Your task to perform on an android device: make emails show in primary in the gmail app Image 0: 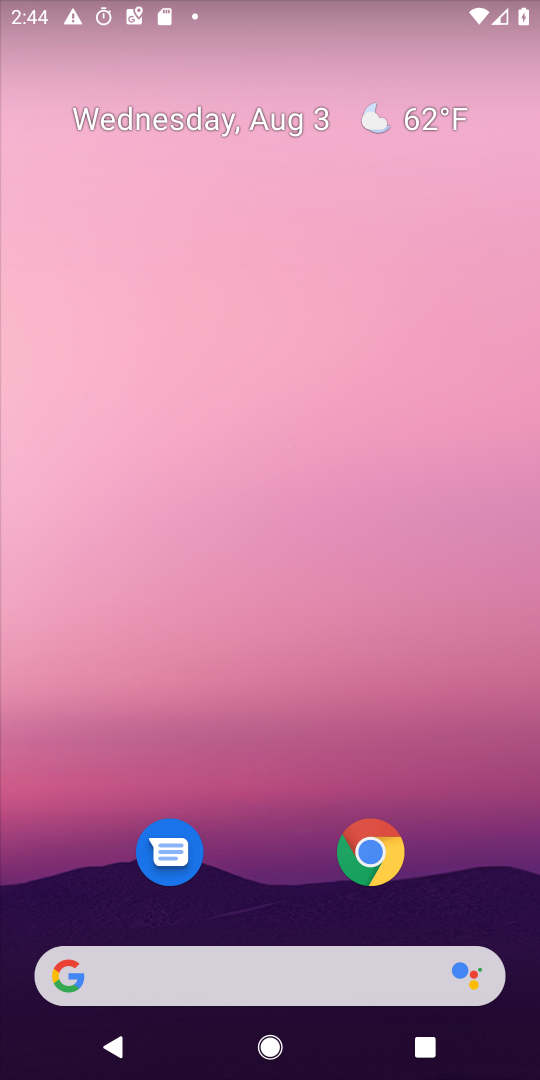
Step 0: drag from (493, 847) to (214, 15)
Your task to perform on an android device: make emails show in primary in the gmail app Image 1: 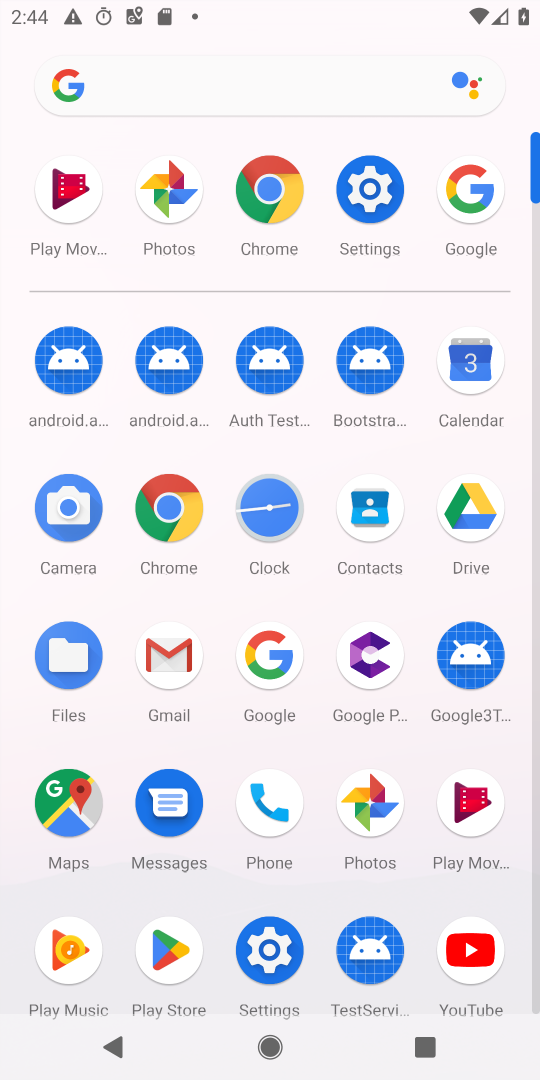
Step 1: click (157, 661)
Your task to perform on an android device: make emails show in primary in the gmail app Image 2: 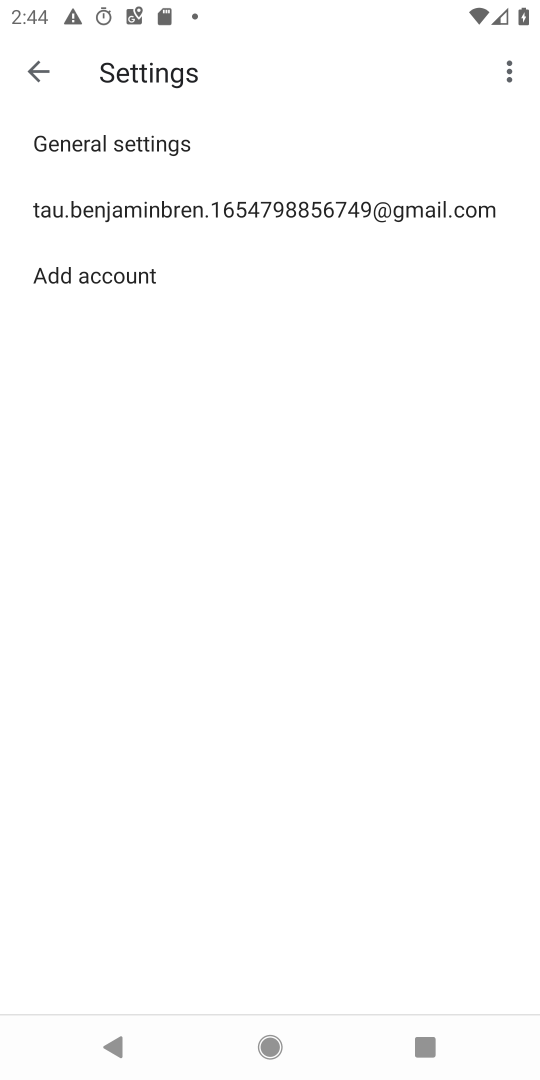
Step 2: task complete